Your task to perform on an android device: stop showing notifications on the lock screen Image 0: 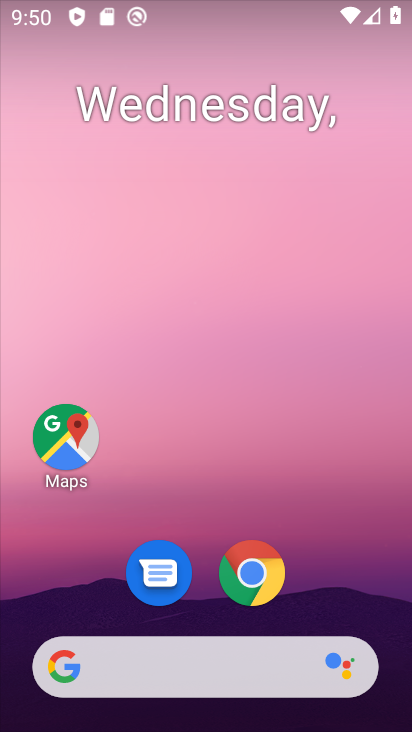
Step 0: drag from (363, 596) to (344, 201)
Your task to perform on an android device: stop showing notifications on the lock screen Image 1: 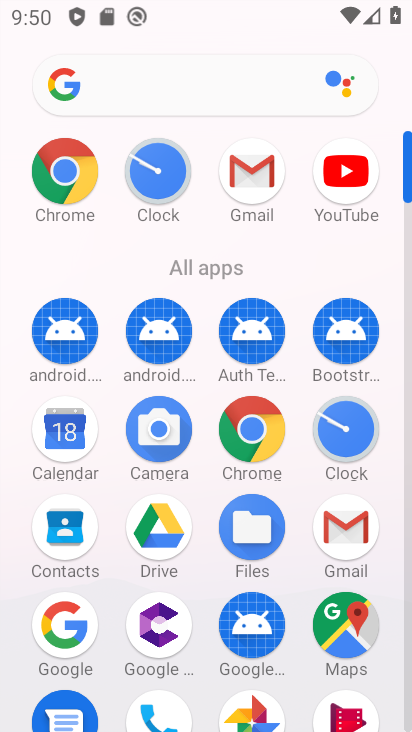
Step 1: drag from (390, 586) to (384, 322)
Your task to perform on an android device: stop showing notifications on the lock screen Image 2: 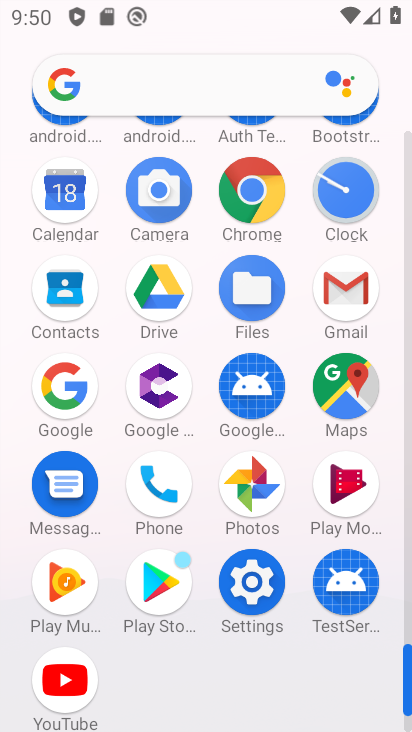
Step 2: click (238, 600)
Your task to perform on an android device: stop showing notifications on the lock screen Image 3: 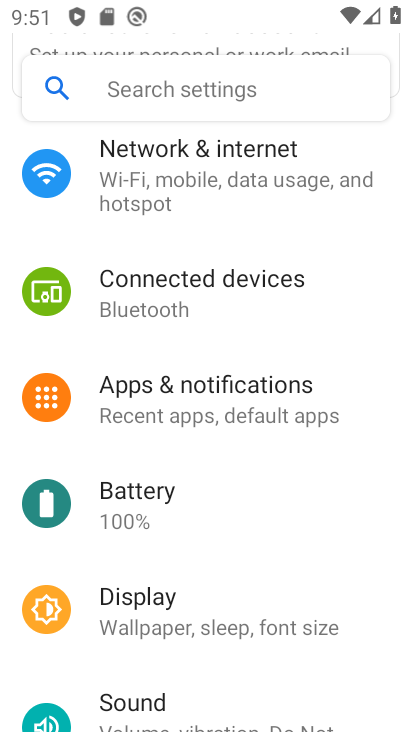
Step 3: drag from (369, 357) to (367, 544)
Your task to perform on an android device: stop showing notifications on the lock screen Image 4: 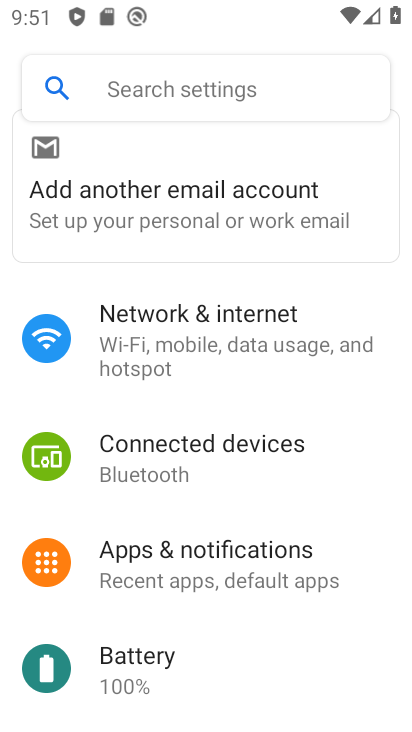
Step 4: drag from (370, 619) to (373, 462)
Your task to perform on an android device: stop showing notifications on the lock screen Image 5: 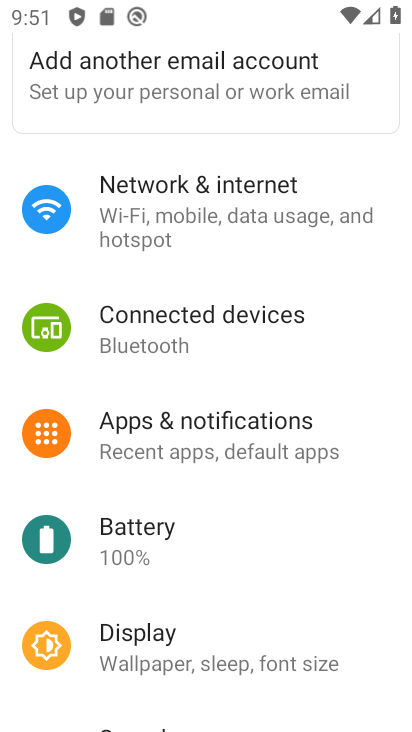
Step 5: drag from (364, 617) to (378, 451)
Your task to perform on an android device: stop showing notifications on the lock screen Image 6: 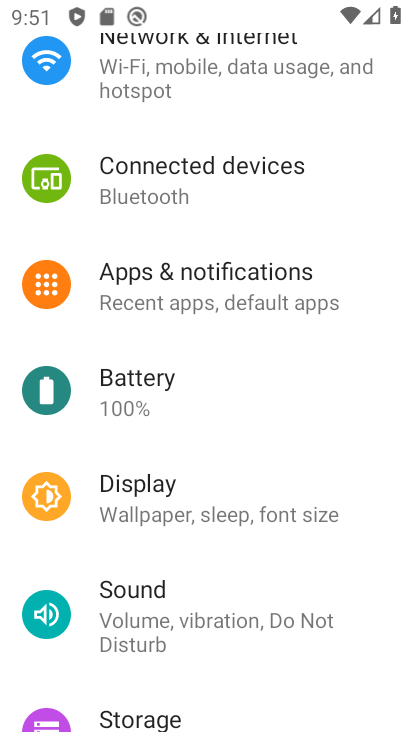
Step 6: drag from (377, 650) to (371, 510)
Your task to perform on an android device: stop showing notifications on the lock screen Image 7: 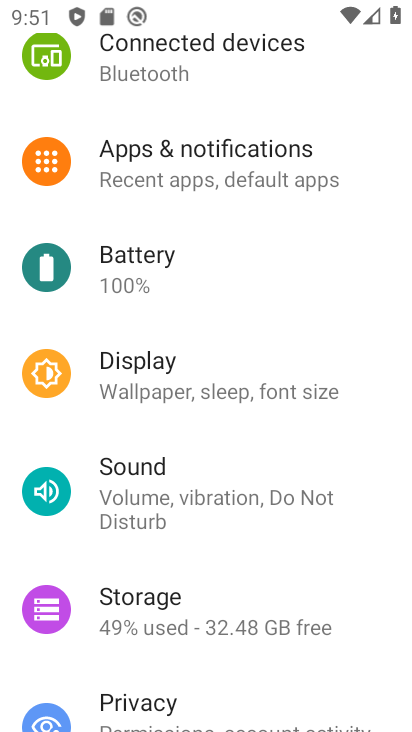
Step 7: drag from (374, 683) to (370, 565)
Your task to perform on an android device: stop showing notifications on the lock screen Image 8: 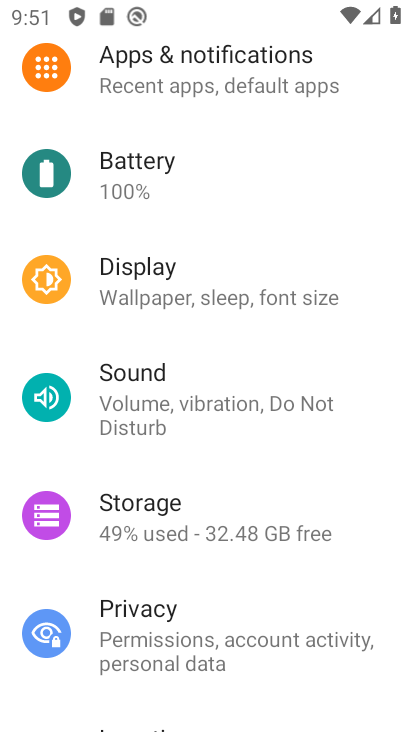
Step 8: drag from (371, 695) to (361, 574)
Your task to perform on an android device: stop showing notifications on the lock screen Image 9: 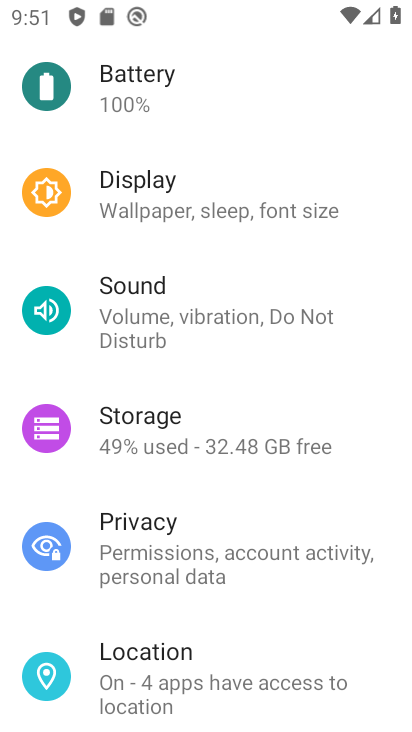
Step 9: drag from (351, 703) to (355, 587)
Your task to perform on an android device: stop showing notifications on the lock screen Image 10: 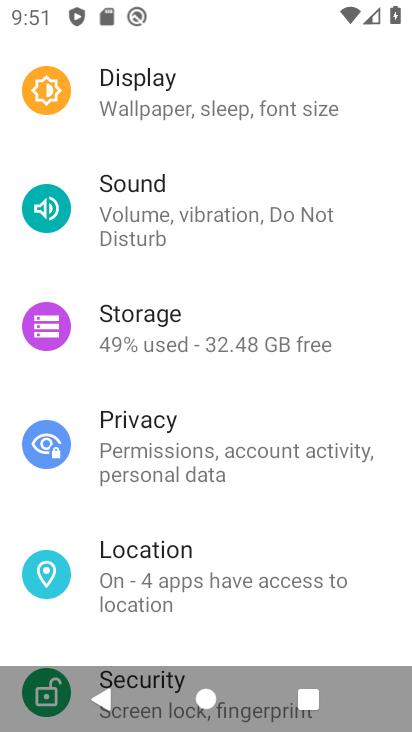
Step 10: drag from (358, 646) to (363, 526)
Your task to perform on an android device: stop showing notifications on the lock screen Image 11: 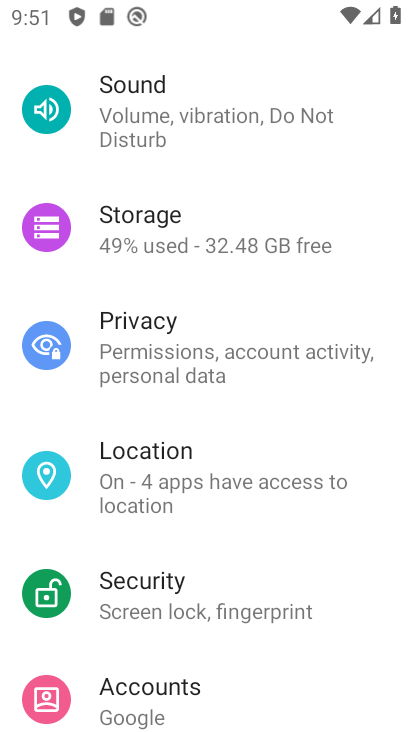
Step 11: drag from (362, 629) to (373, 524)
Your task to perform on an android device: stop showing notifications on the lock screen Image 12: 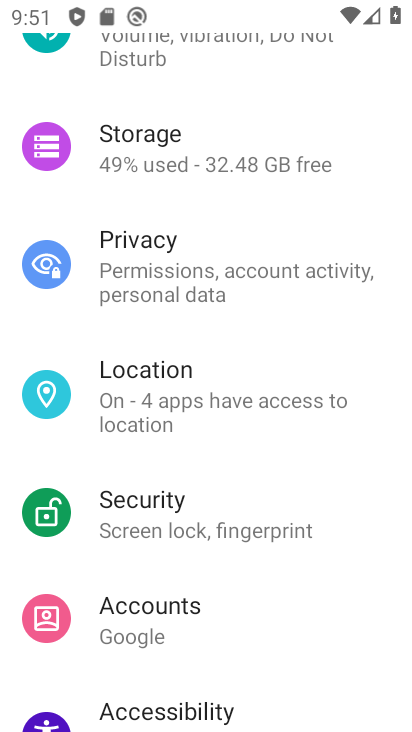
Step 12: drag from (370, 646) to (357, 509)
Your task to perform on an android device: stop showing notifications on the lock screen Image 13: 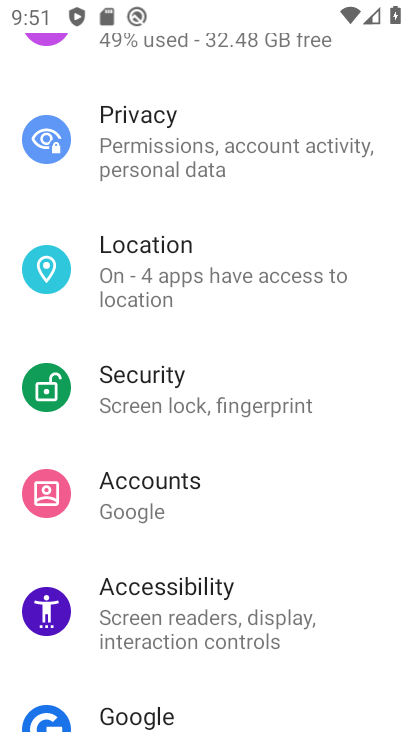
Step 13: drag from (362, 666) to (359, 552)
Your task to perform on an android device: stop showing notifications on the lock screen Image 14: 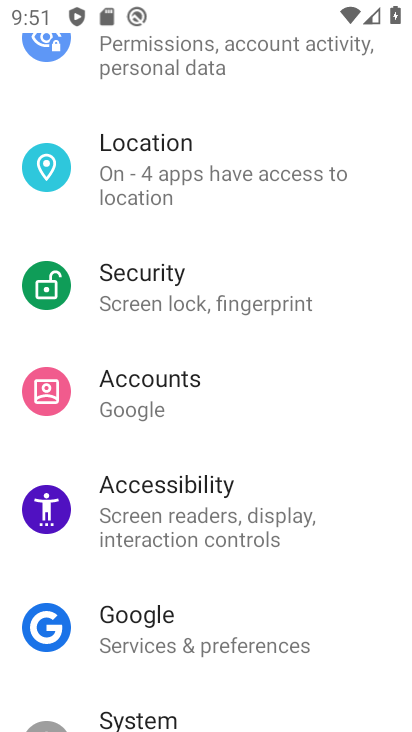
Step 14: drag from (355, 659) to (359, 519)
Your task to perform on an android device: stop showing notifications on the lock screen Image 15: 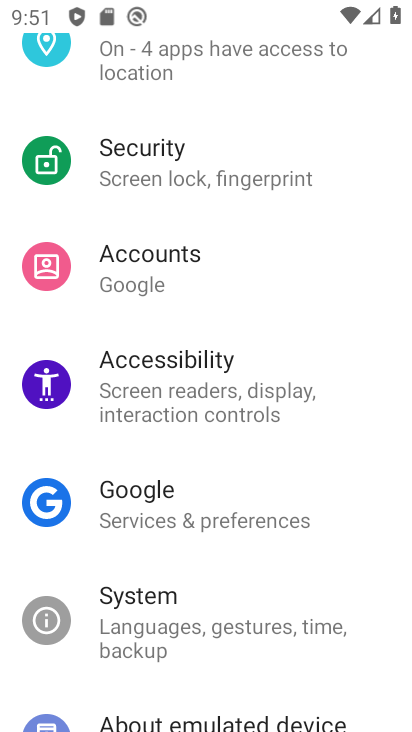
Step 15: drag from (363, 672) to (373, 555)
Your task to perform on an android device: stop showing notifications on the lock screen Image 16: 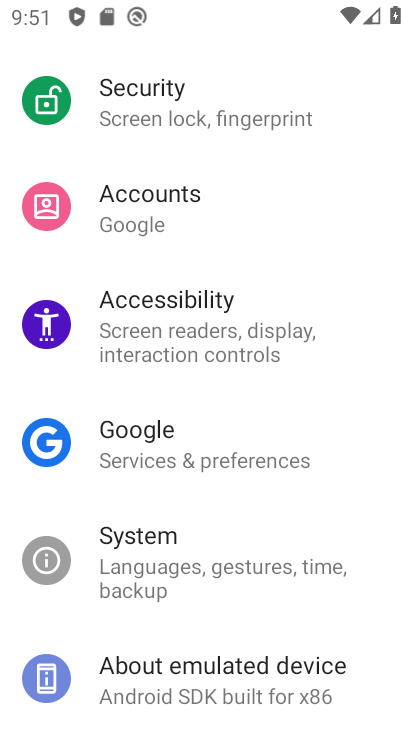
Step 16: drag from (364, 471) to (371, 669)
Your task to perform on an android device: stop showing notifications on the lock screen Image 17: 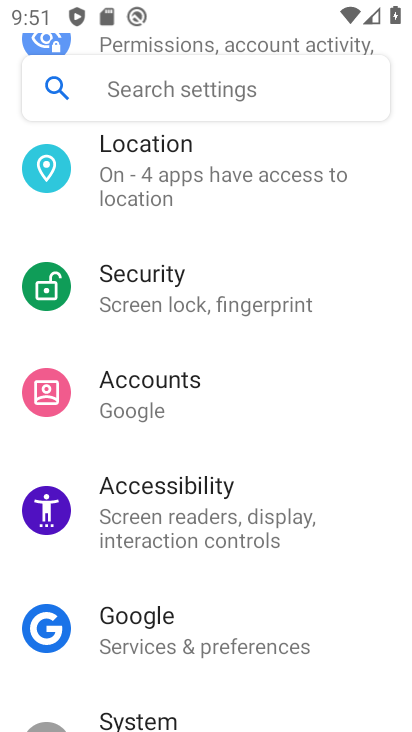
Step 17: drag from (383, 274) to (369, 389)
Your task to perform on an android device: stop showing notifications on the lock screen Image 18: 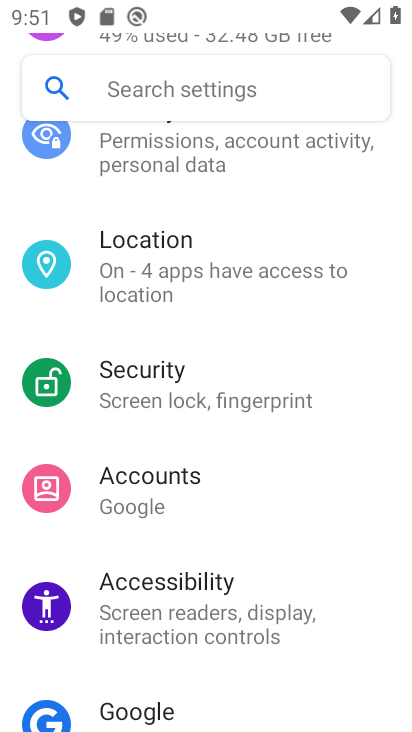
Step 18: drag from (352, 224) to (344, 330)
Your task to perform on an android device: stop showing notifications on the lock screen Image 19: 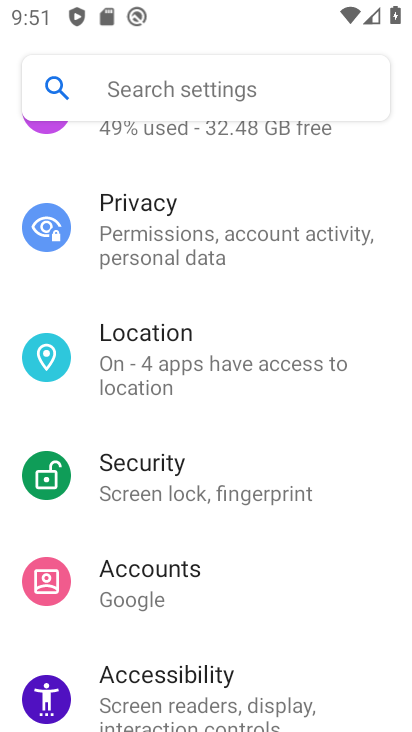
Step 19: drag from (362, 178) to (345, 326)
Your task to perform on an android device: stop showing notifications on the lock screen Image 20: 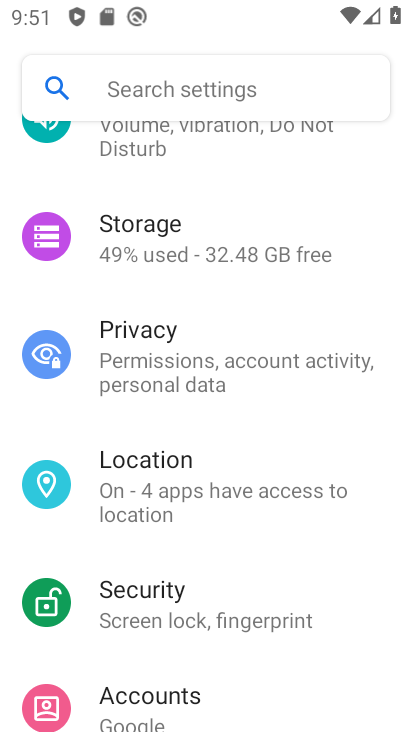
Step 20: drag from (352, 191) to (343, 338)
Your task to perform on an android device: stop showing notifications on the lock screen Image 21: 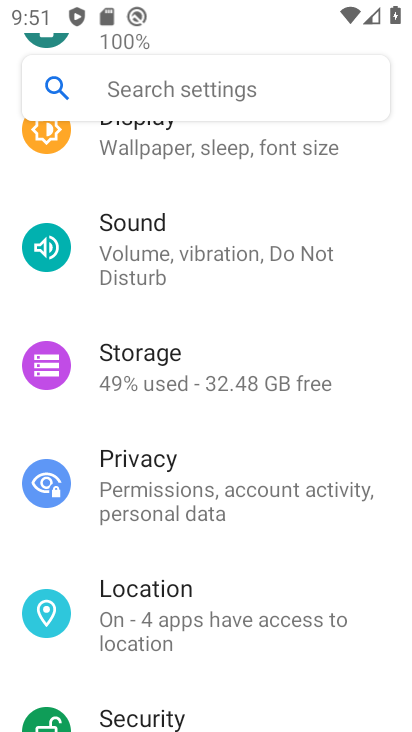
Step 21: drag from (352, 185) to (334, 307)
Your task to perform on an android device: stop showing notifications on the lock screen Image 22: 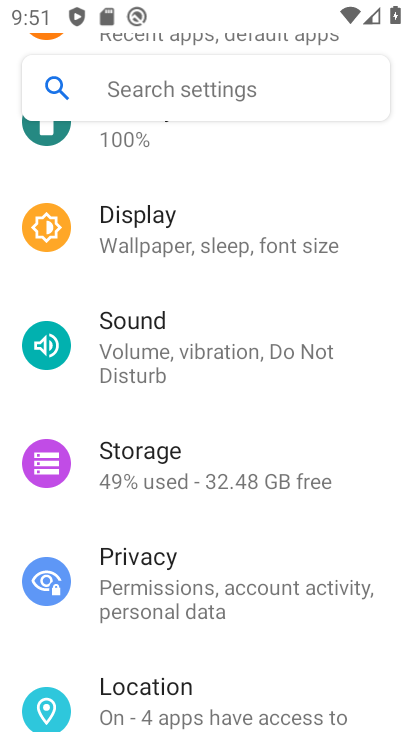
Step 22: drag from (355, 189) to (344, 338)
Your task to perform on an android device: stop showing notifications on the lock screen Image 23: 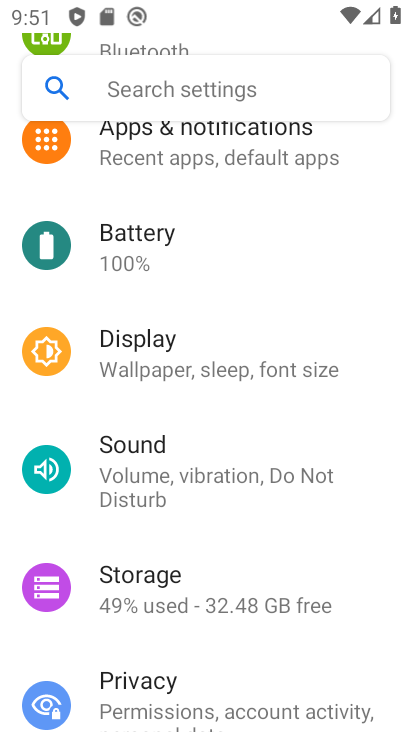
Step 23: drag from (362, 173) to (360, 294)
Your task to perform on an android device: stop showing notifications on the lock screen Image 24: 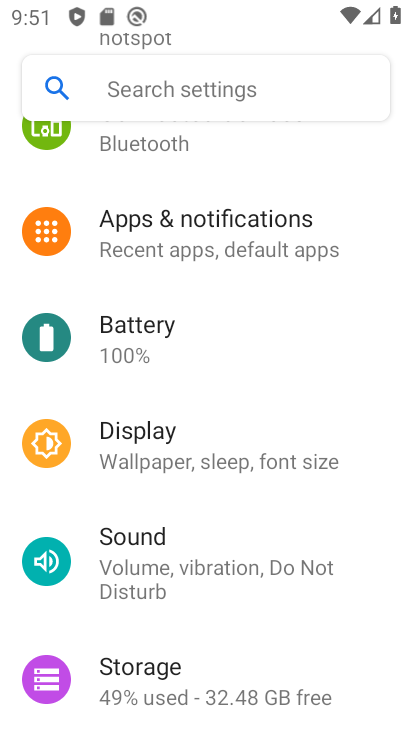
Step 24: click (209, 236)
Your task to perform on an android device: stop showing notifications on the lock screen Image 25: 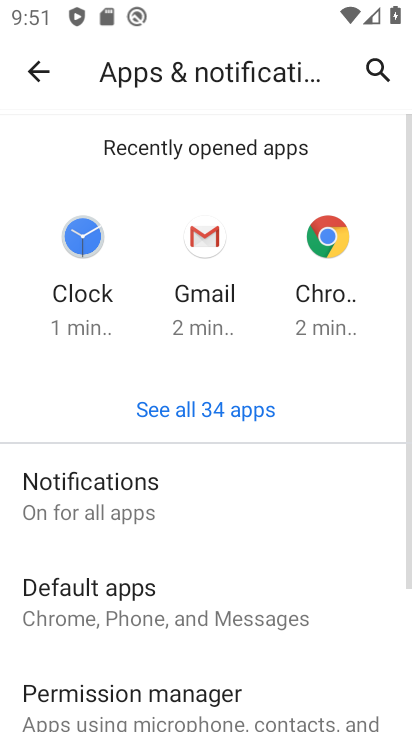
Step 25: drag from (262, 548) to (281, 356)
Your task to perform on an android device: stop showing notifications on the lock screen Image 26: 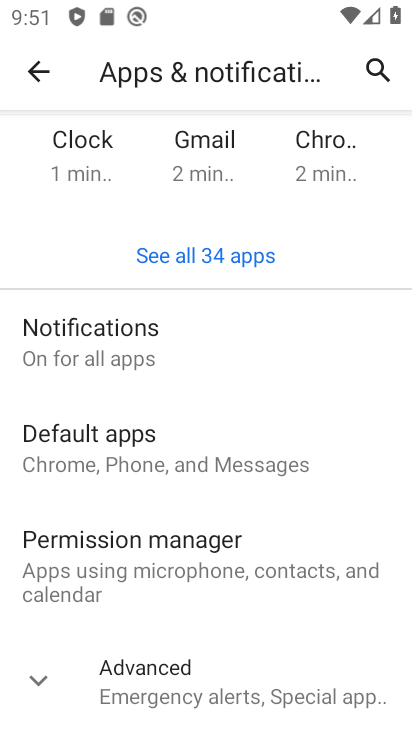
Step 26: drag from (280, 604) to (296, 357)
Your task to perform on an android device: stop showing notifications on the lock screen Image 27: 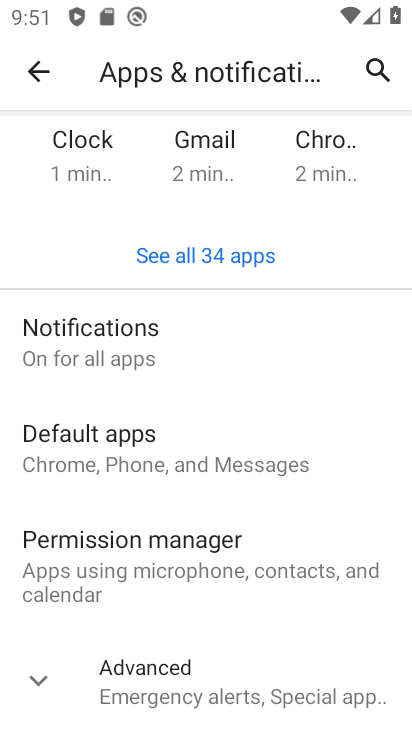
Step 27: click (101, 364)
Your task to perform on an android device: stop showing notifications on the lock screen Image 28: 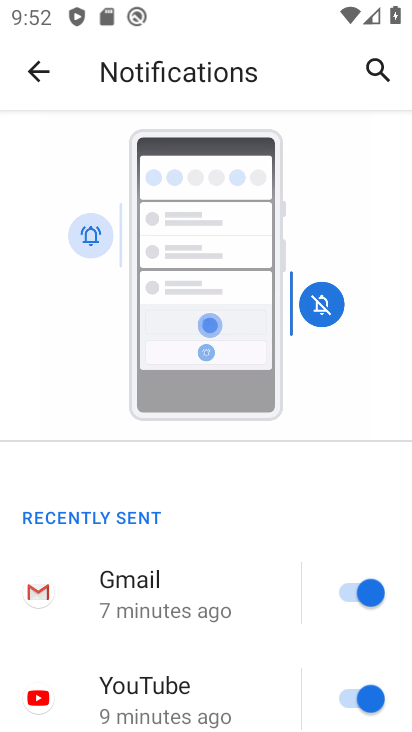
Step 28: drag from (272, 577) to (281, 426)
Your task to perform on an android device: stop showing notifications on the lock screen Image 29: 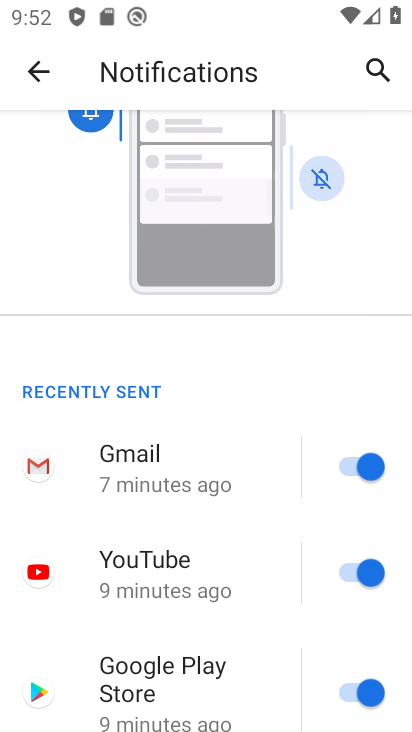
Step 29: drag from (272, 612) to (268, 492)
Your task to perform on an android device: stop showing notifications on the lock screen Image 30: 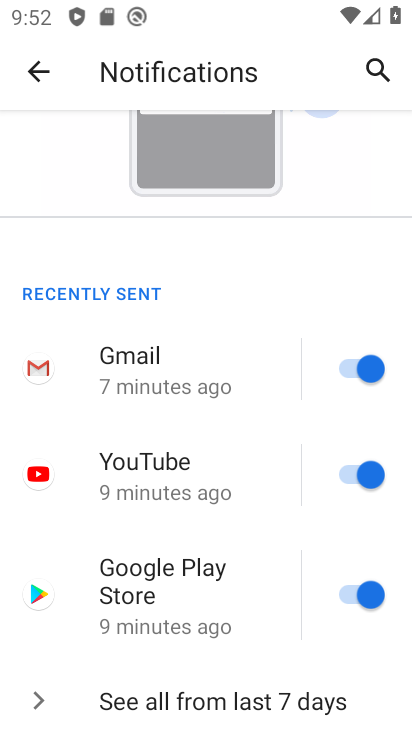
Step 30: drag from (269, 613) to (272, 459)
Your task to perform on an android device: stop showing notifications on the lock screen Image 31: 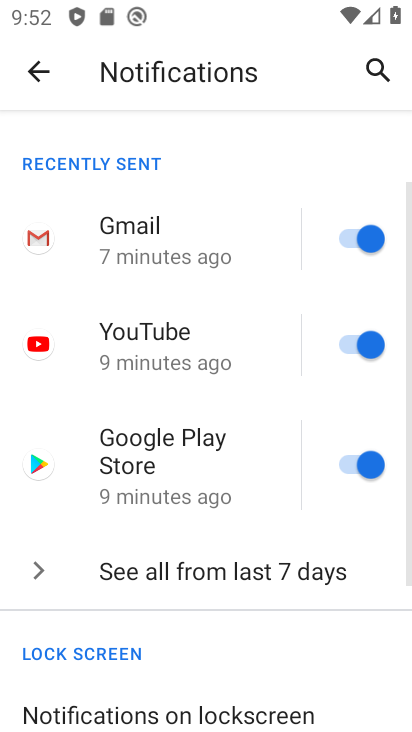
Step 31: drag from (270, 654) to (269, 476)
Your task to perform on an android device: stop showing notifications on the lock screen Image 32: 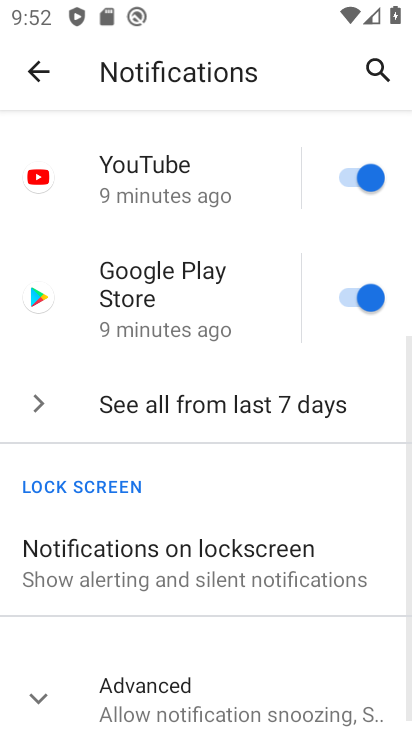
Step 32: drag from (268, 653) to (260, 496)
Your task to perform on an android device: stop showing notifications on the lock screen Image 33: 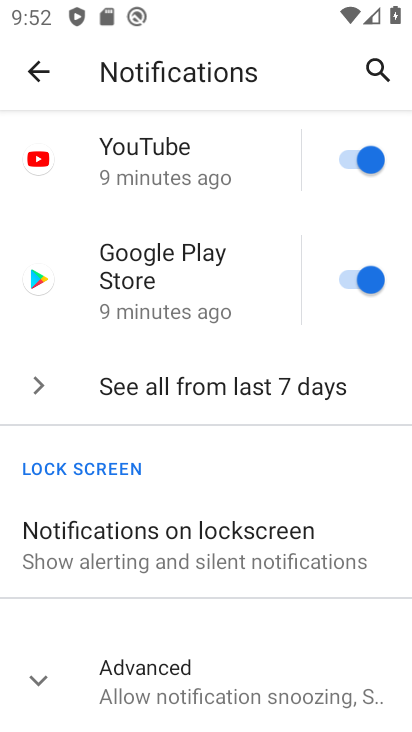
Step 33: click (212, 549)
Your task to perform on an android device: stop showing notifications on the lock screen Image 34: 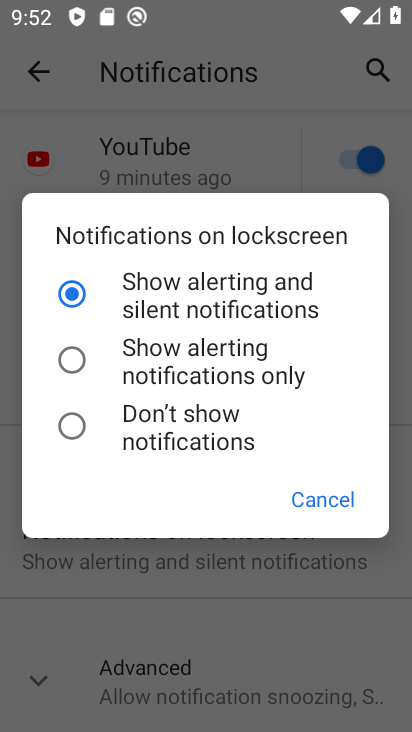
Step 34: click (168, 429)
Your task to perform on an android device: stop showing notifications on the lock screen Image 35: 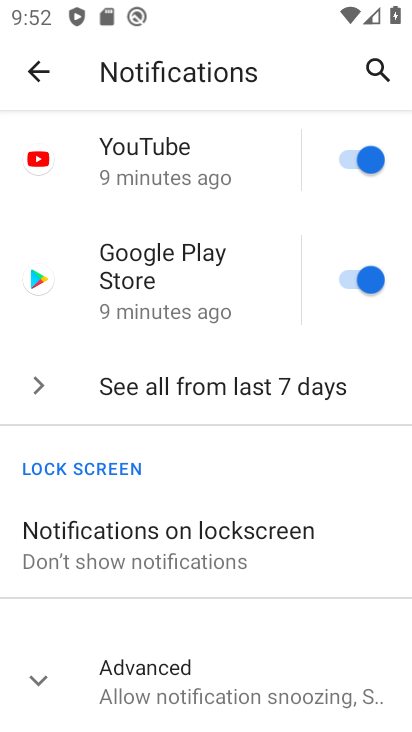
Step 35: task complete